Your task to perform on an android device: Open Google Chrome and open the bookmarks view Image 0: 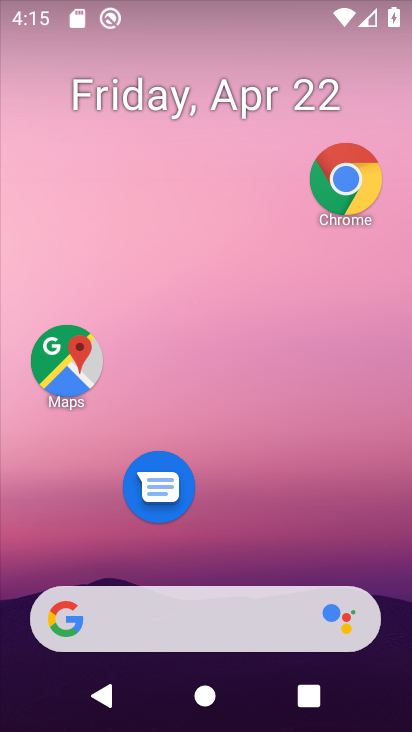
Step 0: click (337, 182)
Your task to perform on an android device: Open Google Chrome and open the bookmarks view Image 1: 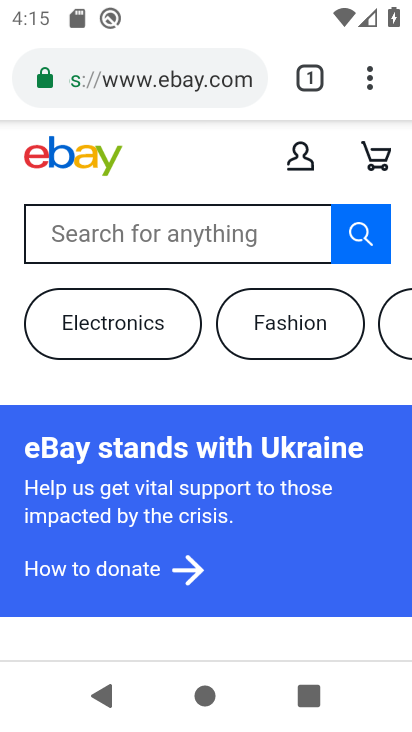
Step 1: click (373, 86)
Your task to perform on an android device: Open Google Chrome and open the bookmarks view Image 2: 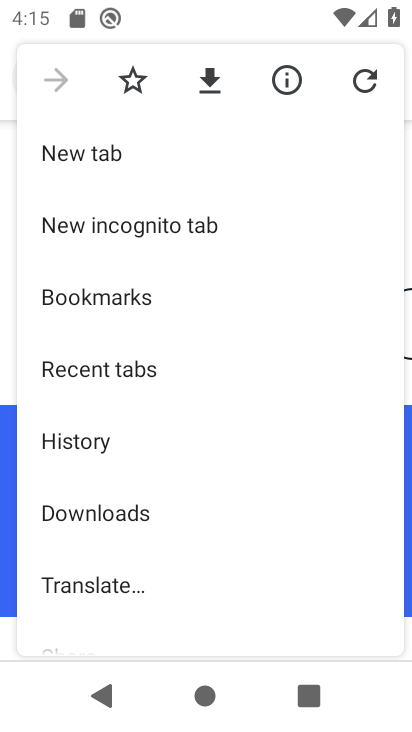
Step 2: click (134, 298)
Your task to perform on an android device: Open Google Chrome and open the bookmarks view Image 3: 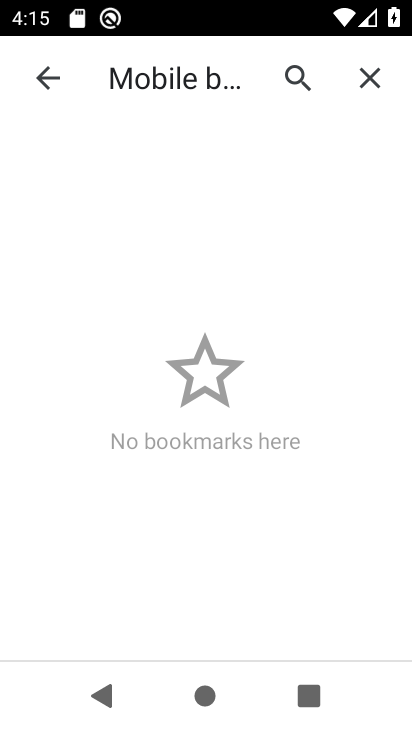
Step 3: task complete